Your task to perform on an android device: check google app version Image 0: 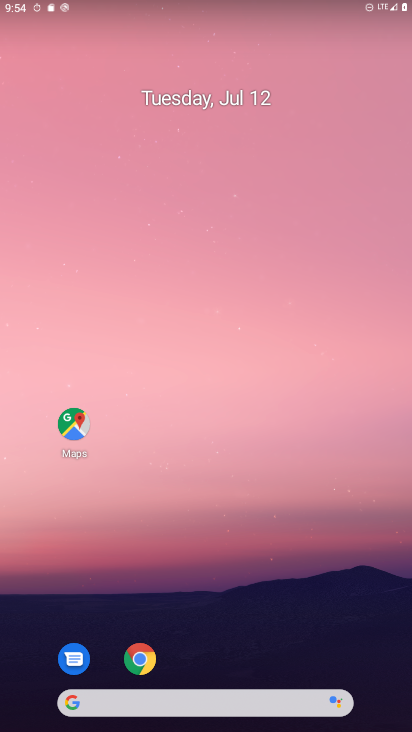
Step 0: drag from (368, 706) to (295, 147)
Your task to perform on an android device: check google app version Image 1: 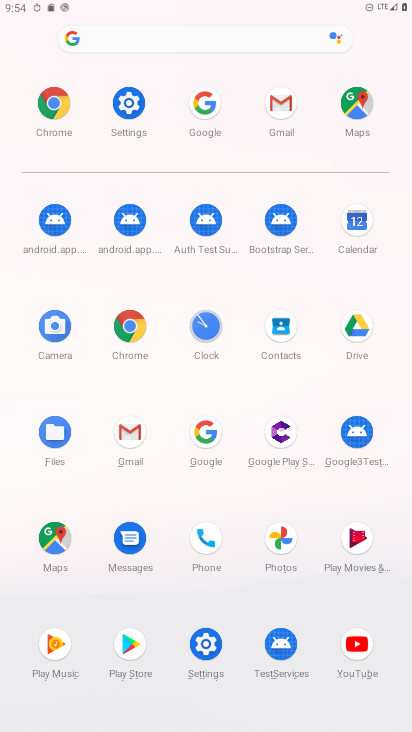
Step 1: click (204, 427)
Your task to perform on an android device: check google app version Image 2: 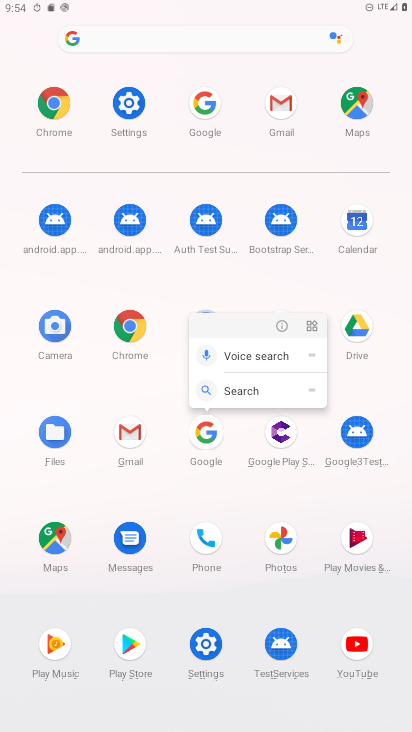
Step 2: click (204, 427)
Your task to perform on an android device: check google app version Image 3: 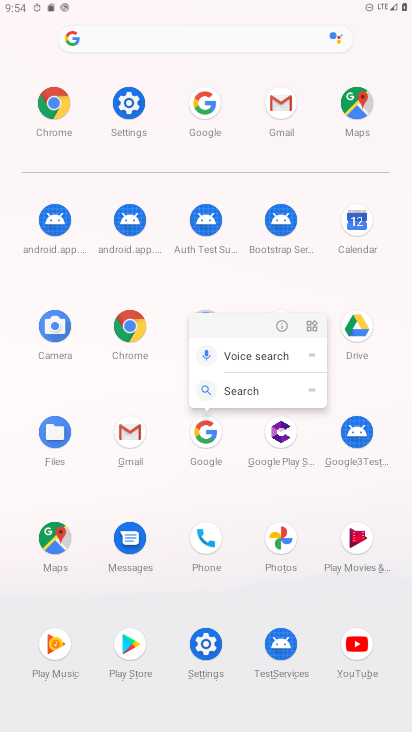
Step 3: click (273, 327)
Your task to perform on an android device: check google app version Image 4: 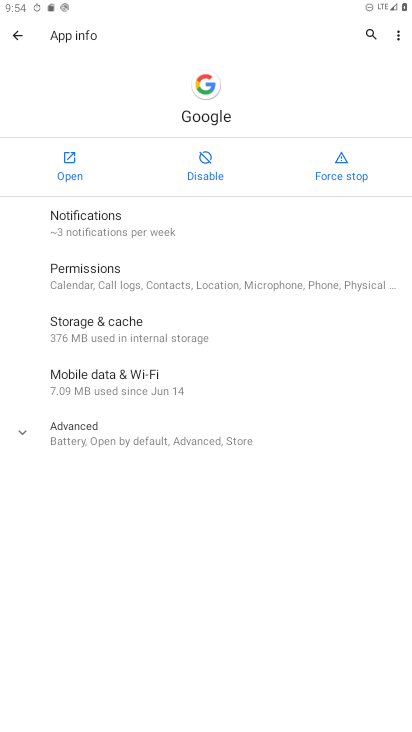
Step 4: click (63, 445)
Your task to perform on an android device: check google app version Image 5: 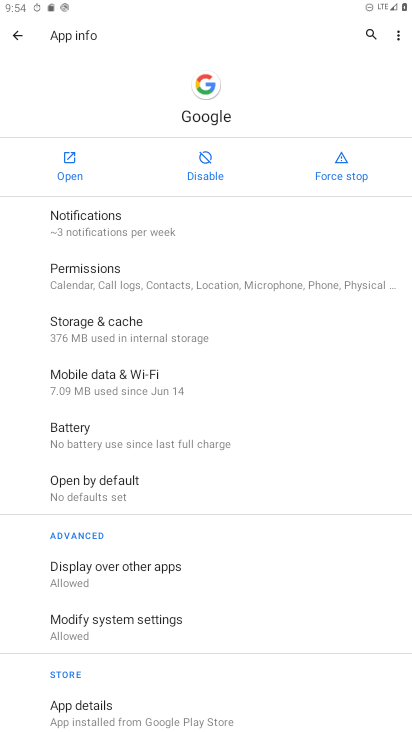
Step 5: task complete